Your task to perform on an android device: open wifi settings Image 0: 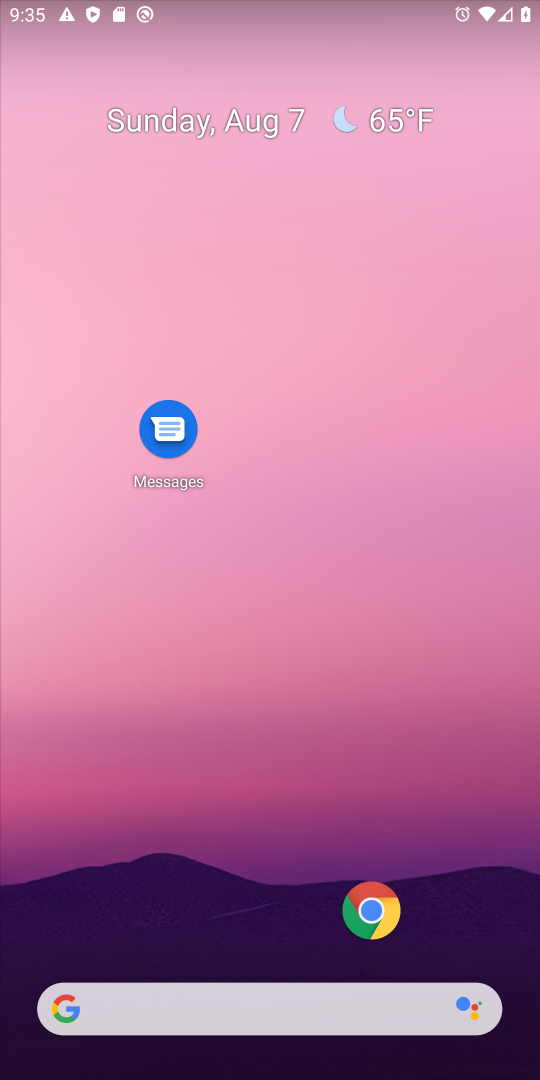
Step 0: drag from (195, 954) to (394, 32)
Your task to perform on an android device: open wifi settings Image 1: 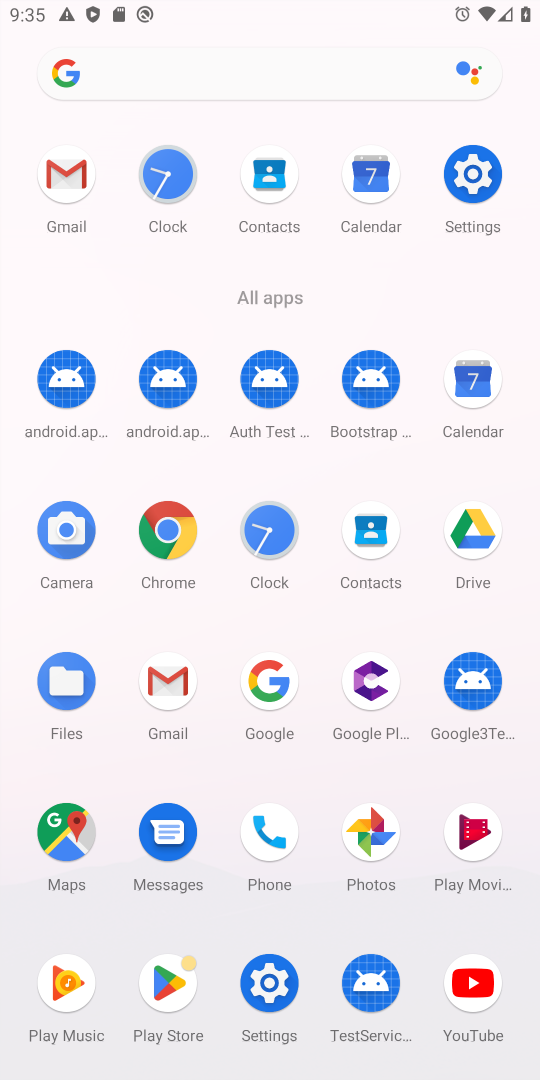
Step 1: click (456, 193)
Your task to perform on an android device: open wifi settings Image 2: 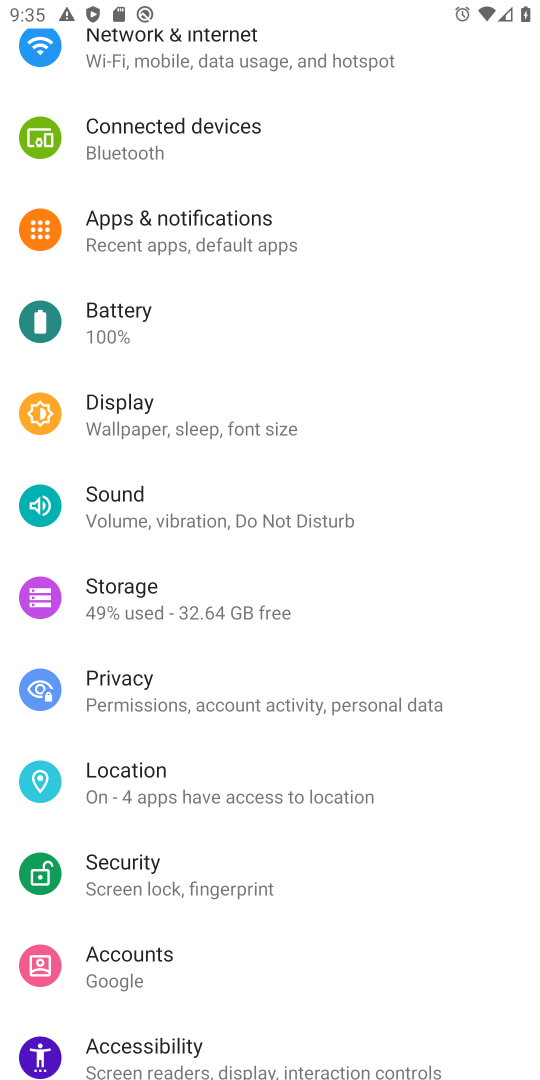
Step 2: click (206, 51)
Your task to perform on an android device: open wifi settings Image 3: 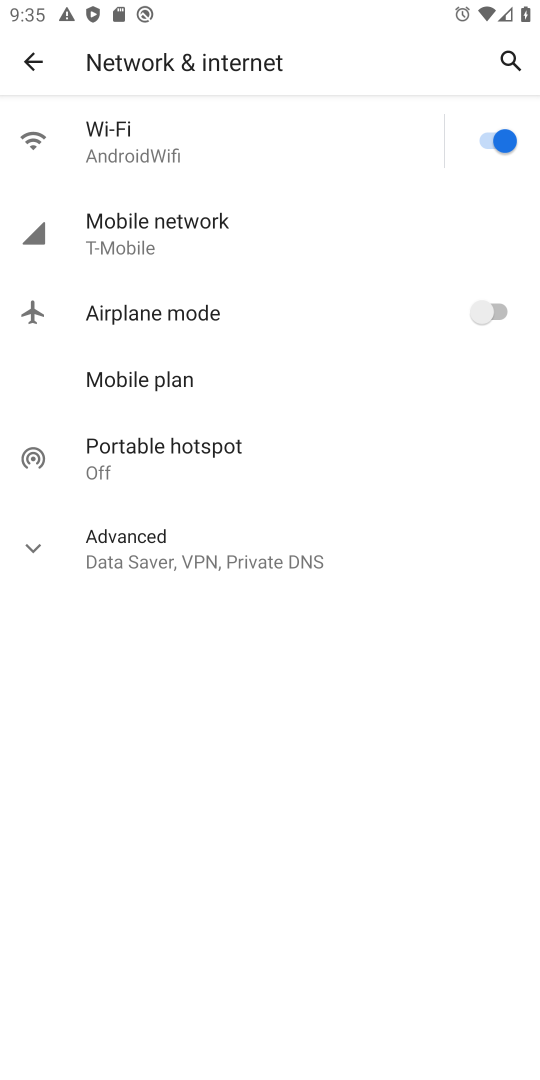
Step 3: click (149, 161)
Your task to perform on an android device: open wifi settings Image 4: 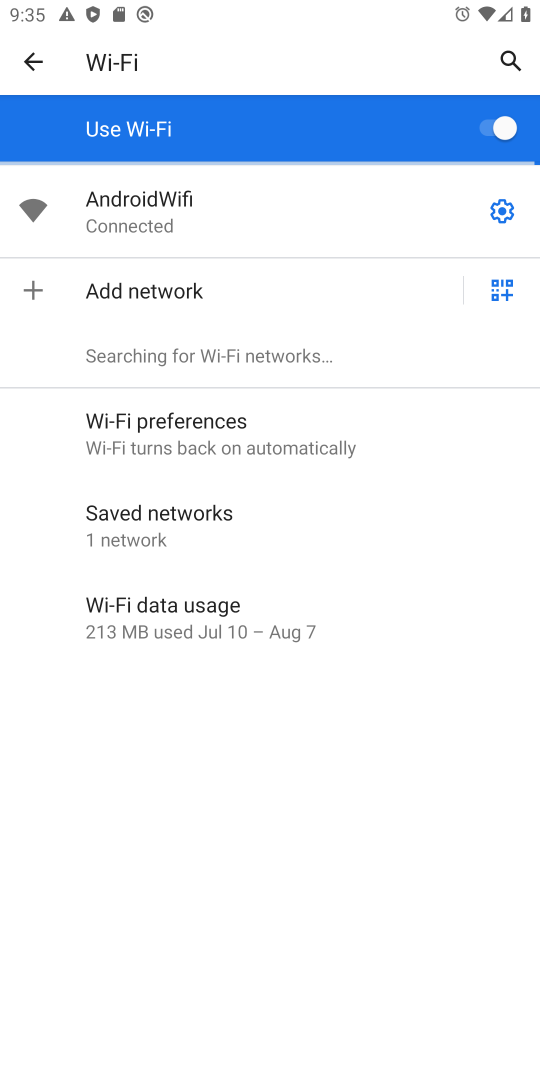
Step 4: click (506, 201)
Your task to perform on an android device: open wifi settings Image 5: 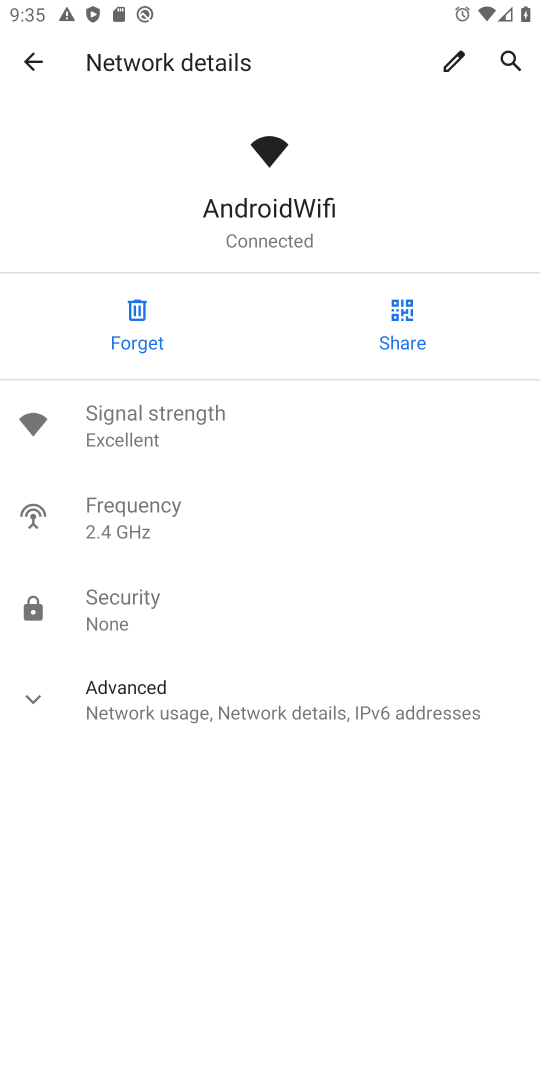
Step 5: click (122, 709)
Your task to perform on an android device: open wifi settings Image 6: 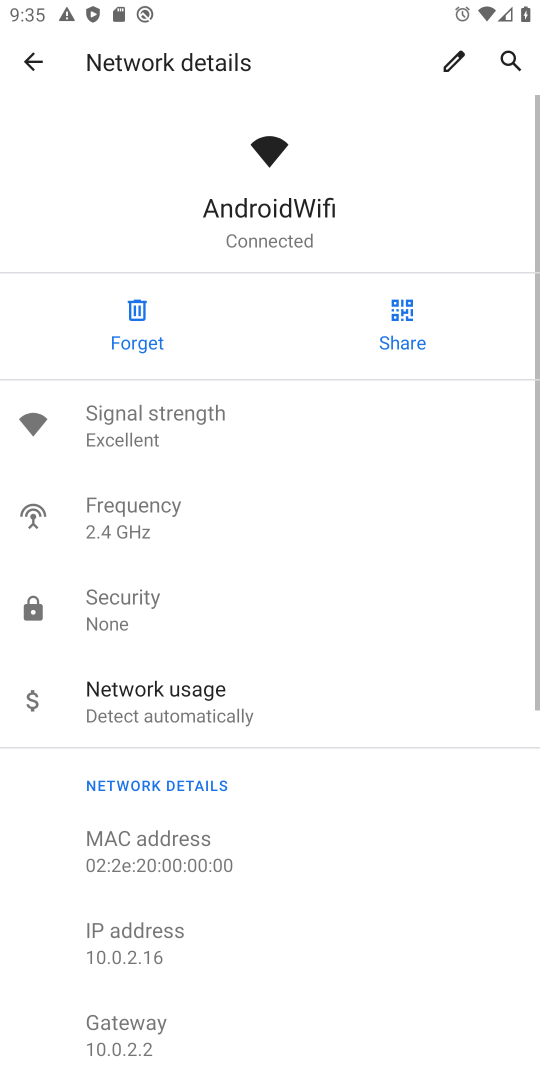
Step 6: task complete